Your task to perform on an android device: create a new album in the google photos Image 0: 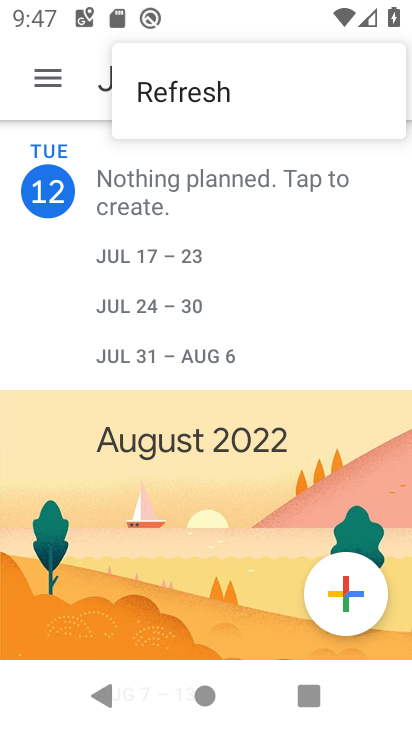
Step 0: press home button
Your task to perform on an android device: create a new album in the google photos Image 1: 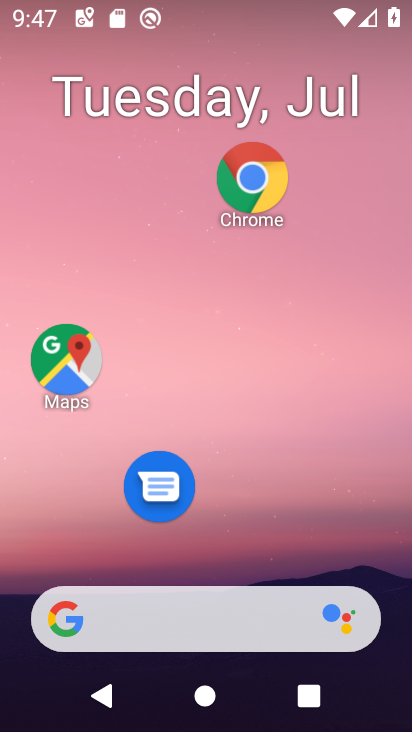
Step 1: drag from (230, 653) to (261, 288)
Your task to perform on an android device: create a new album in the google photos Image 2: 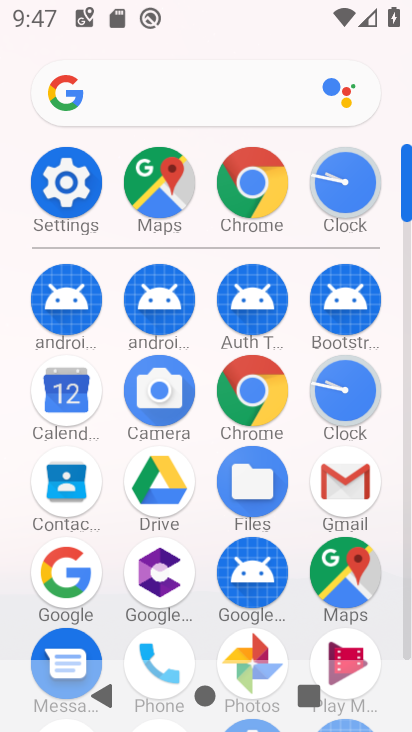
Step 2: drag from (259, 459) to (244, 212)
Your task to perform on an android device: create a new album in the google photos Image 3: 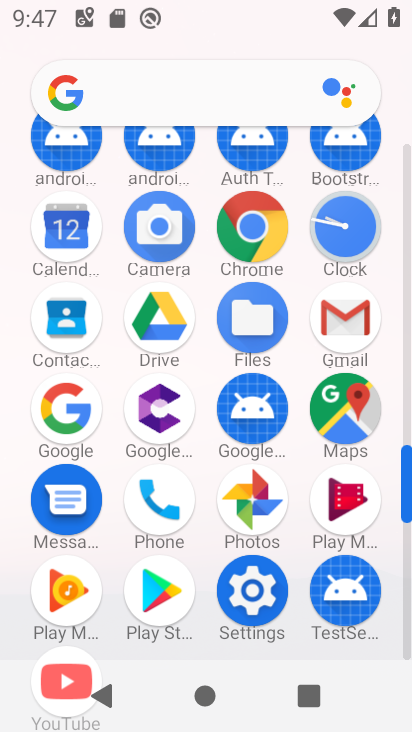
Step 3: click (244, 501)
Your task to perform on an android device: create a new album in the google photos Image 4: 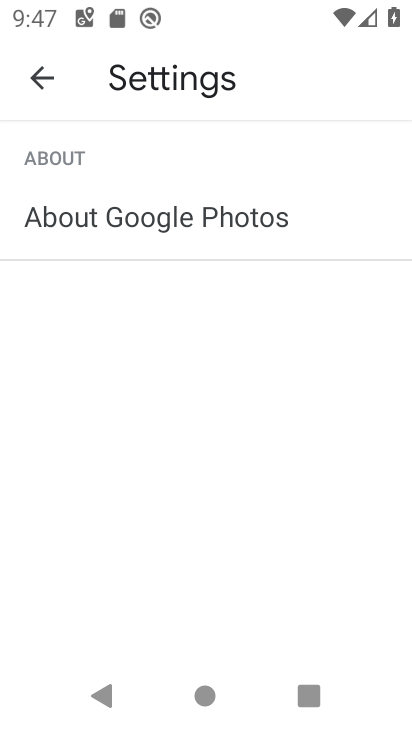
Step 4: click (41, 82)
Your task to perform on an android device: create a new album in the google photos Image 5: 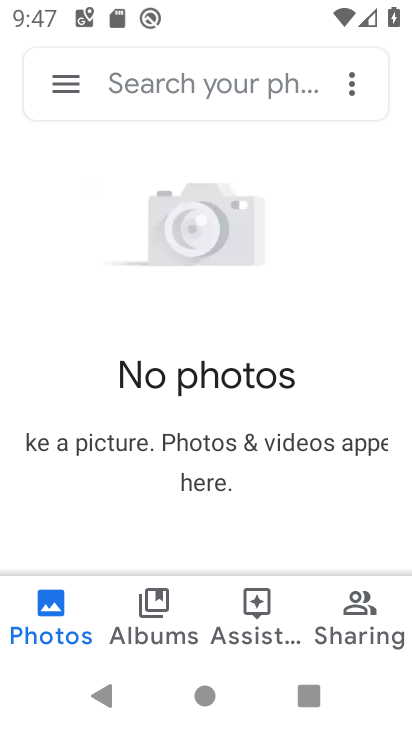
Step 5: click (160, 619)
Your task to perform on an android device: create a new album in the google photos Image 6: 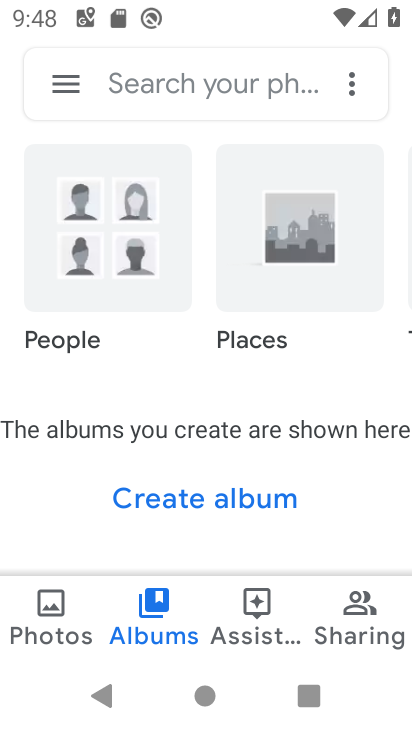
Step 6: click (185, 497)
Your task to perform on an android device: create a new album in the google photos Image 7: 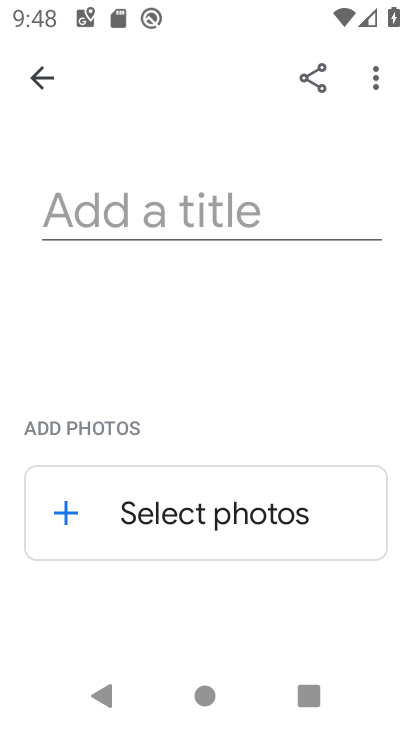
Step 7: click (152, 233)
Your task to perform on an android device: create a new album in the google photos Image 8: 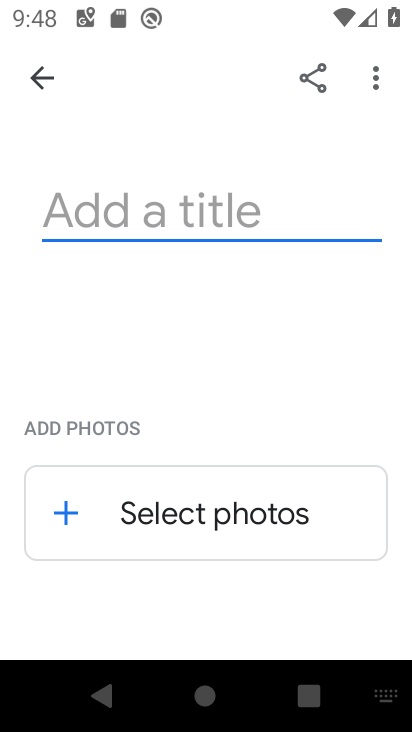
Step 8: type "hsrtgrbf"
Your task to perform on an android device: create a new album in the google photos Image 9: 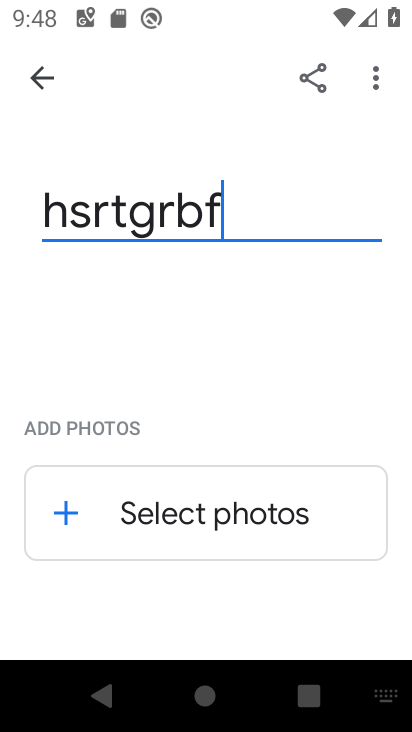
Step 9: type ""
Your task to perform on an android device: create a new album in the google photos Image 10: 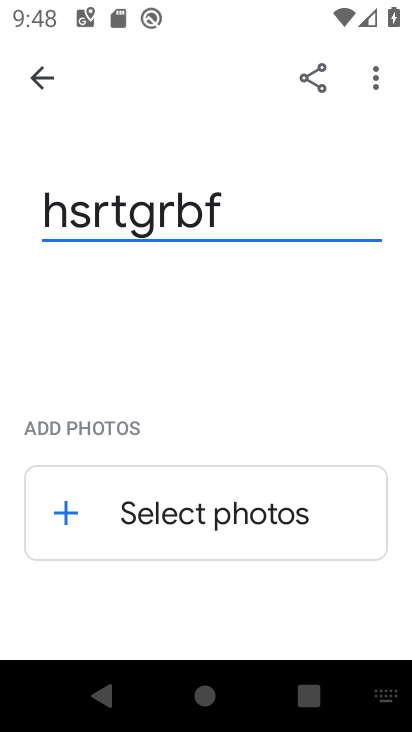
Step 10: click (234, 516)
Your task to perform on an android device: create a new album in the google photos Image 11: 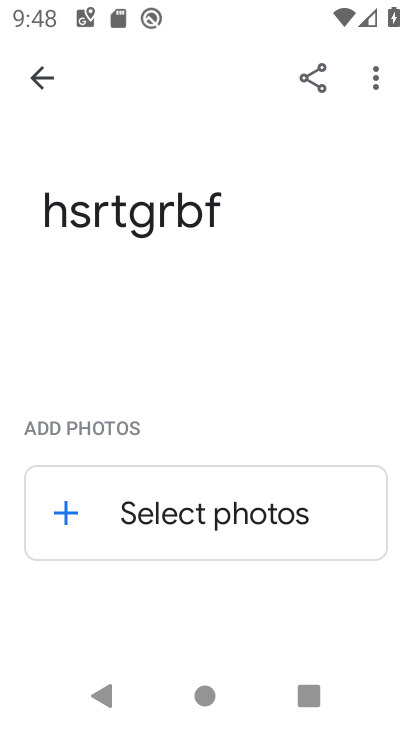
Step 11: click (72, 515)
Your task to perform on an android device: create a new album in the google photos Image 12: 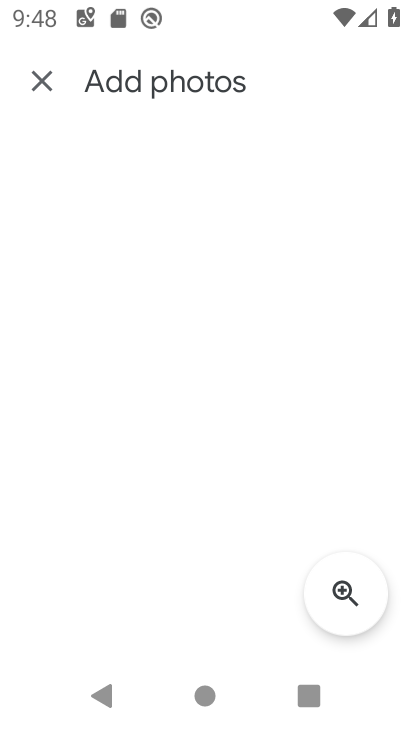
Step 12: task complete